Your task to perform on an android device: turn off location history Image 0: 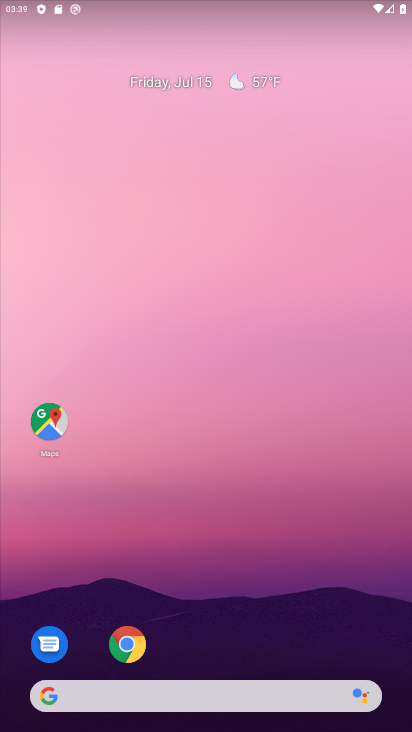
Step 0: drag from (374, 618) to (249, 96)
Your task to perform on an android device: turn off location history Image 1: 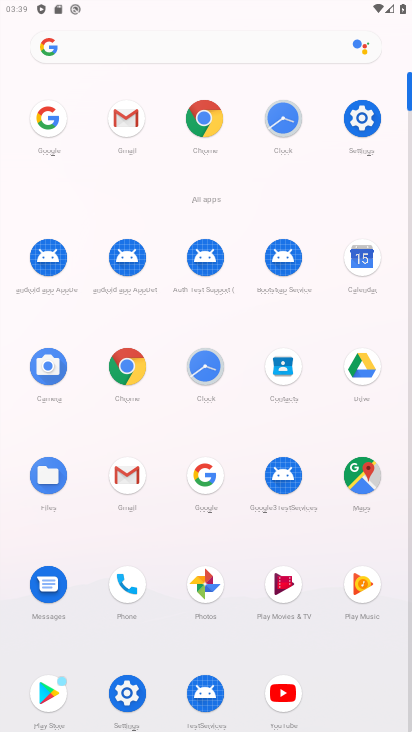
Step 1: click (378, 490)
Your task to perform on an android device: turn off location history Image 2: 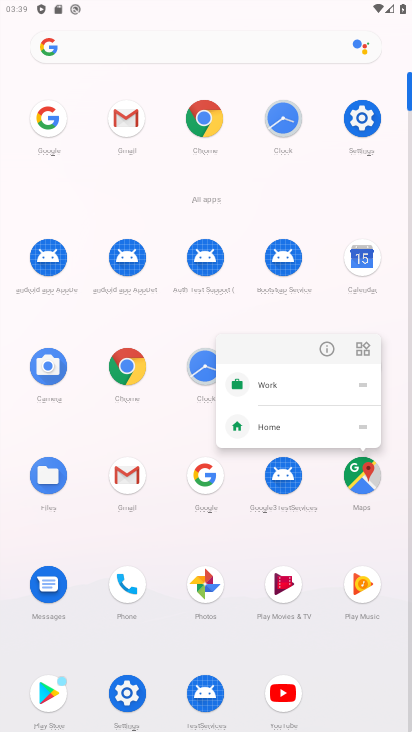
Step 2: click (372, 489)
Your task to perform on an android device: turn off location history Image 3: 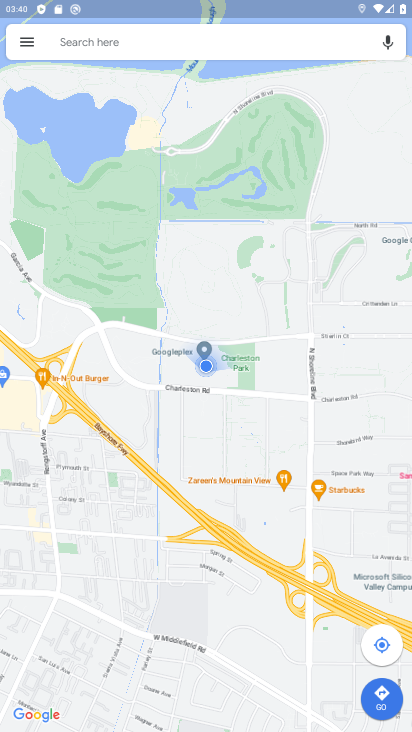
Step 3: click (18, 48)
Your task to perform on an android device: turn off location history Image 4: 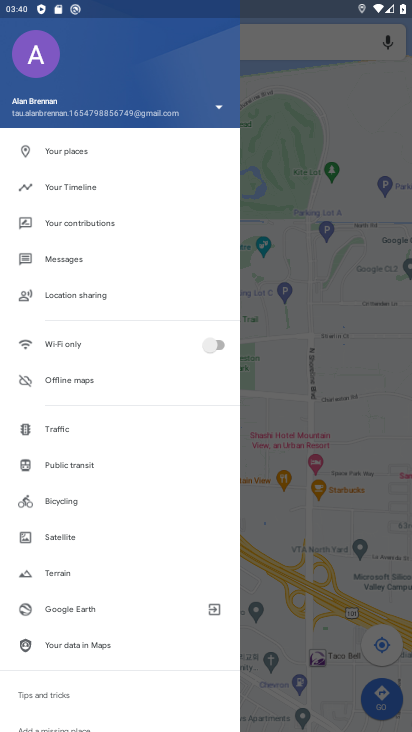
Step 4: click (86, 175)
Your task to perform on an android device: turn off location history Image 5: 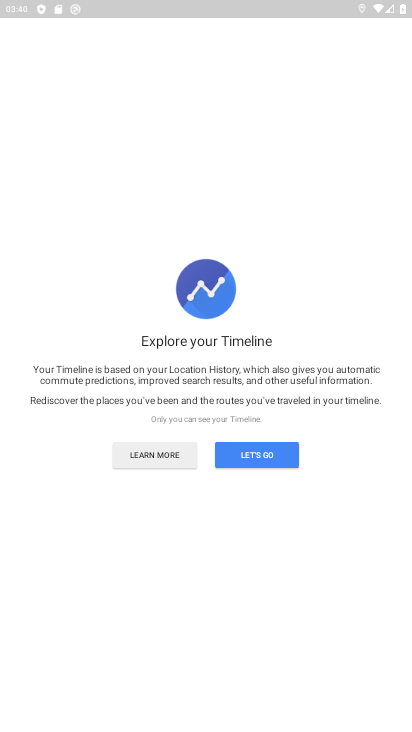
Step 5: click (264, 453)
Your task to perform on an android device: turn off location history Image 6: 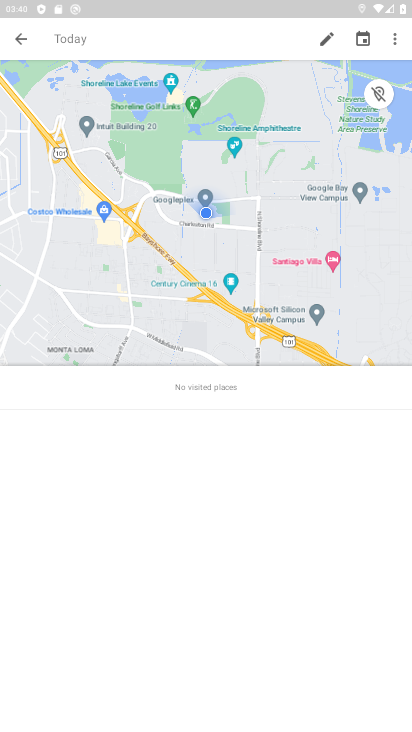
Step 6: click (389, 55)
Your task to perform on an android device: turn off location history Image 7: 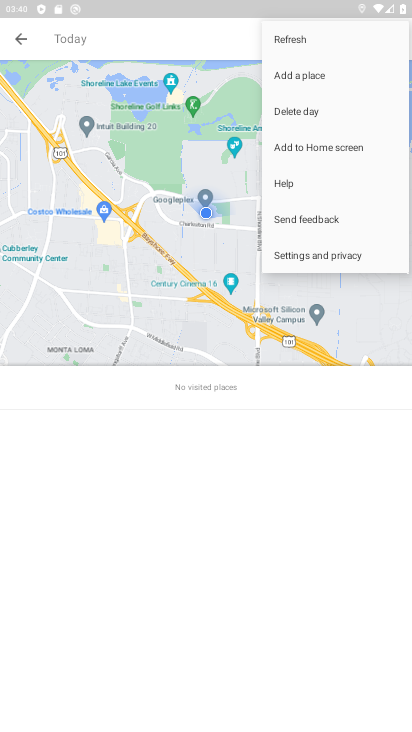
Step 7: click (378, 256)
Your task to perform on an android device: turn off location history Image 8: 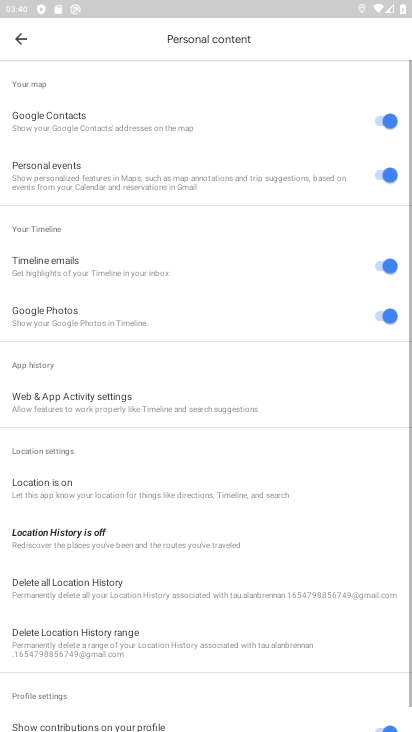
Step 8: click (153, 544)
Your task to perform on an android device: turn off location history Image 9: 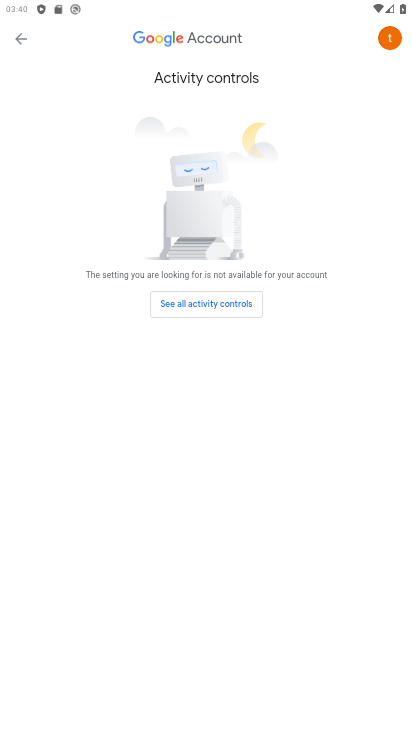
Step 9: task complete